Your task to perform on an android device: Set the phone to "Do not disturb". Image 0: 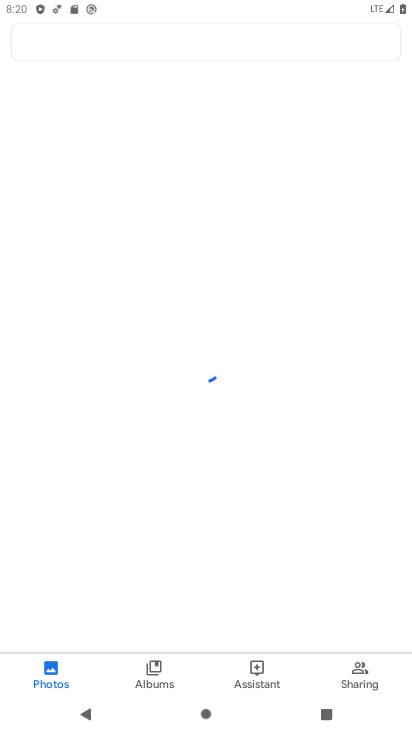
Step 0: press home button
Your task to perform on an android device: Set the phone to "Do not disturb". Image 1: 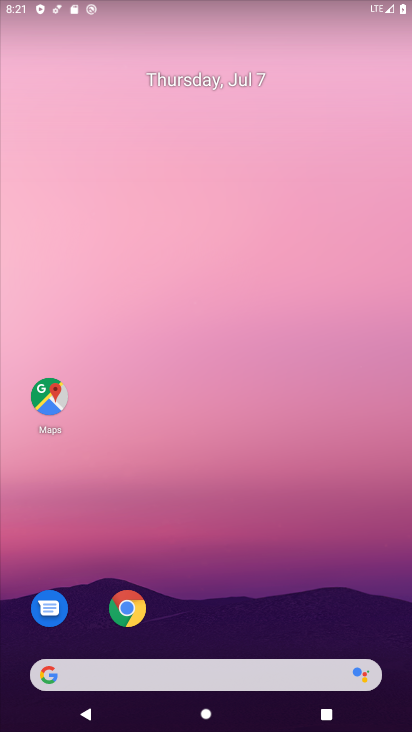
Step 1: drag from (385, 617) to (259, 5)
Your task to perform on an android device: Set the phone to "Do not disturb". Image 2: 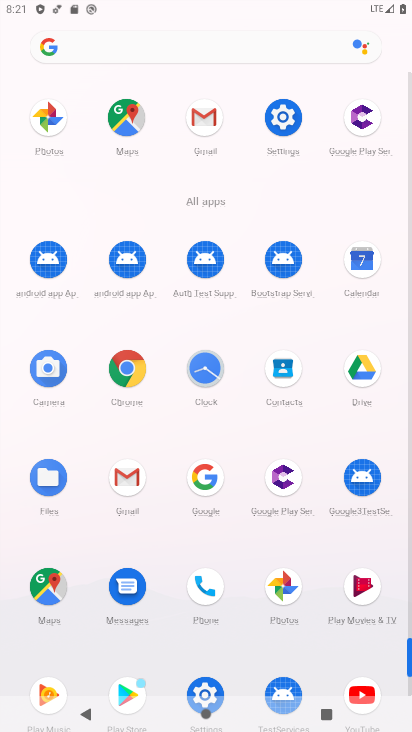
Step 2: click (410, 611)
Your task to perform on an android device: Set the phone to "Do not disturb". Image 3: 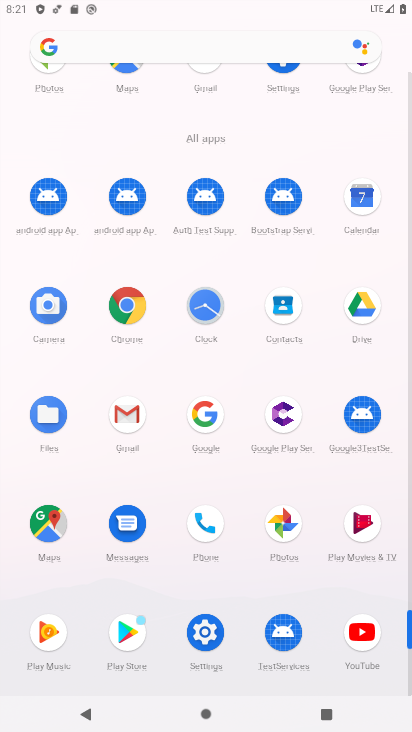
Step 3: click (205, 632)
Your task to perform on an android device: Set the phone to "Do not disturb". Image 4: 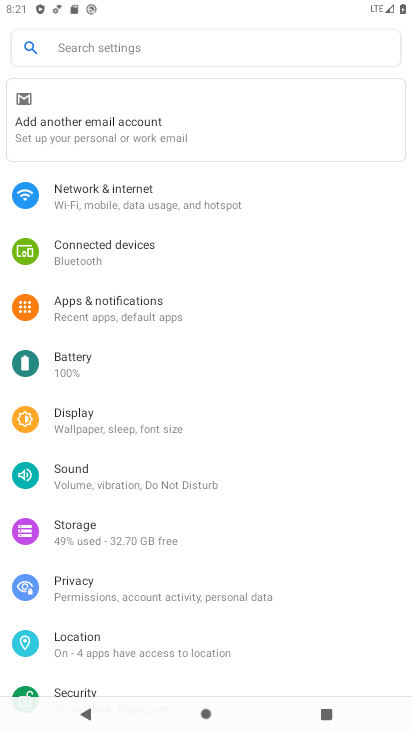
Step 4: click (88, 484)
Your task to perform on an android device: Set the phone to "Do not disturb". Image 5: 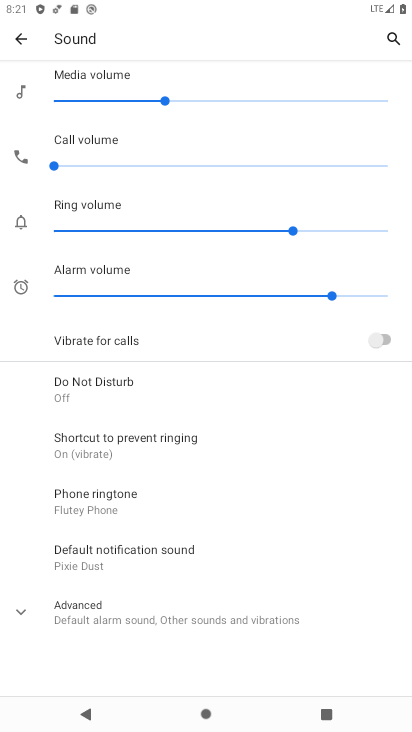
Step 5: click (92, 388)
Your task to perform on an android device: Set the phone to "Do not disturb". Image 6: 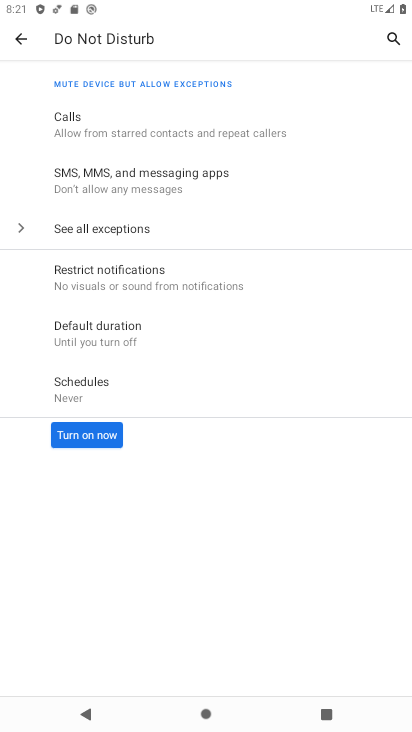
Step 6: click (75, 437)
Your task to perform on an android device: Set the phone to "Do not disturb". Image 7: 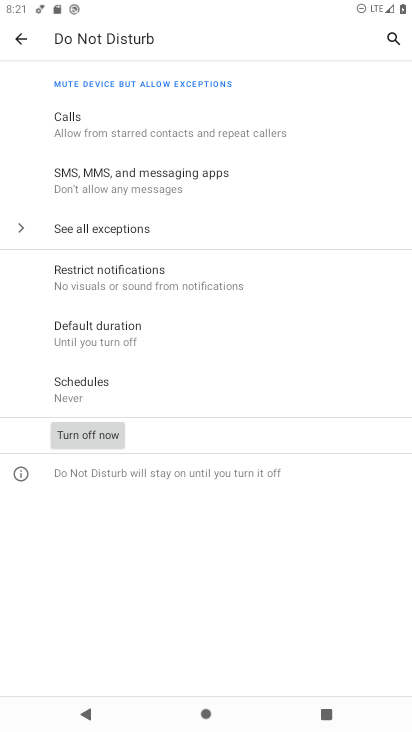
Step 7: task complete